Your task to perform on an android device: What's the weather like in Beijing? Image 0: 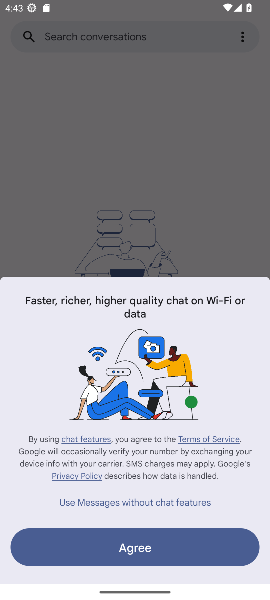
Step 0: press home button
Your task to perform on an android device: What's the weather like in Beijing? Image 1: 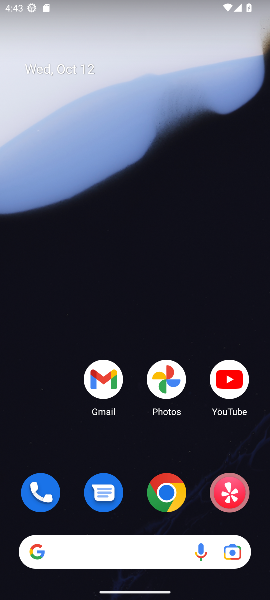
Step 1: click (158, 502)
Your task to perform on an android device: What's the weather like in Beijing? Image 2: 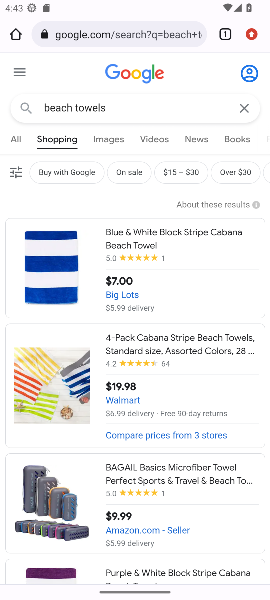
Step 2: click (105, 36)
Your task to perform on an android device: What's the weather like in Beijing? Image 3: 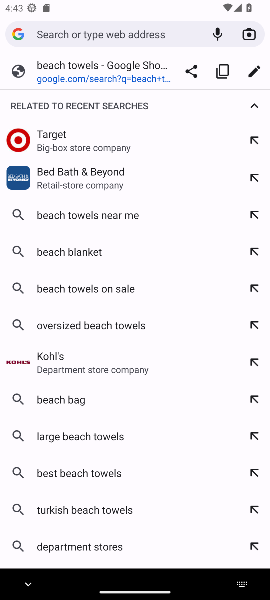
Step 3: type "weather in beijing "
Your task to perform on an android device: What's the weather like in Beijing? Image 4: 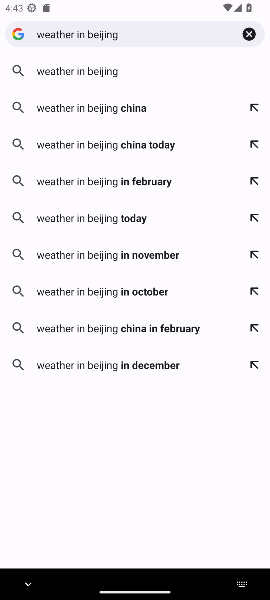
Step 4: click (68, 75)
Your task to perform on an android device: What's the weather like in Beijing? Image 5: 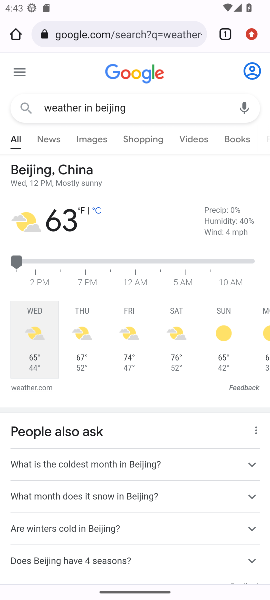
Step 5: task complete